Your task to perform on an android device: toggle translation in the chrome app Image 0: 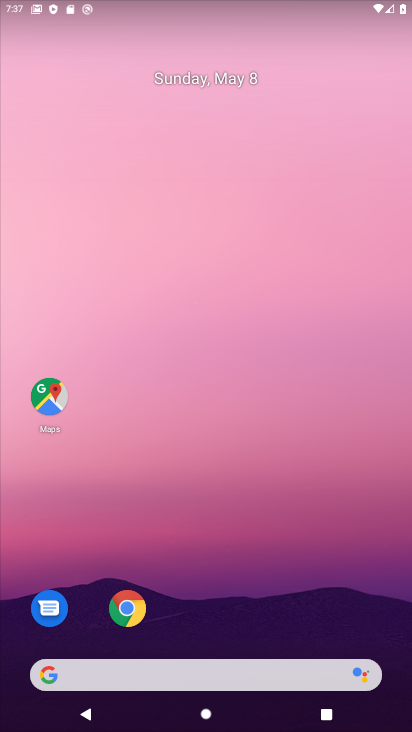
Step 0: click (128, 603)
Your task to perform on an android device: toggle translation in the chrome app Image 1: 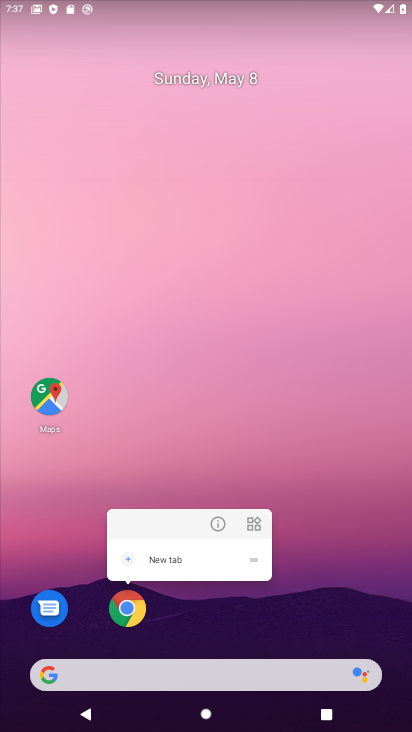
Step 1: click (136, 623)
Your task to perform on an android device: toggle translation in the chrome app Image 2: 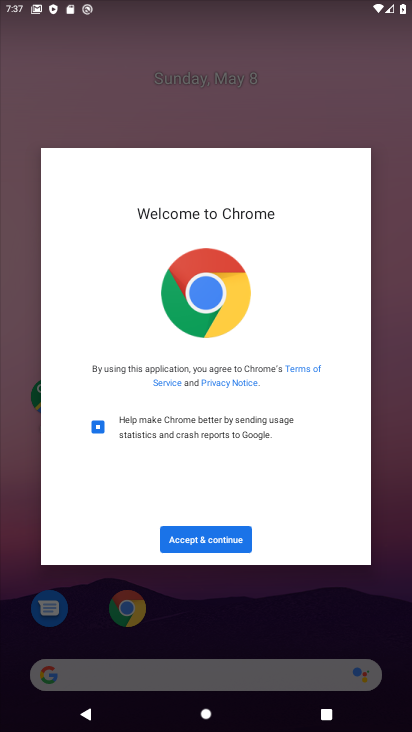
Step 2: click (131, 613)
Your task to perform on an android device: toggle translation in the chrome app Image 3: 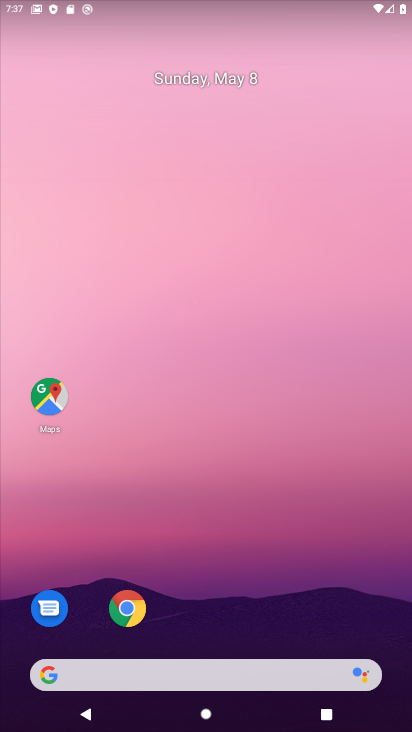
Step 3: click (138, 616)
Your task to perform on an android device: toggle translation in the chrome app Image 4: 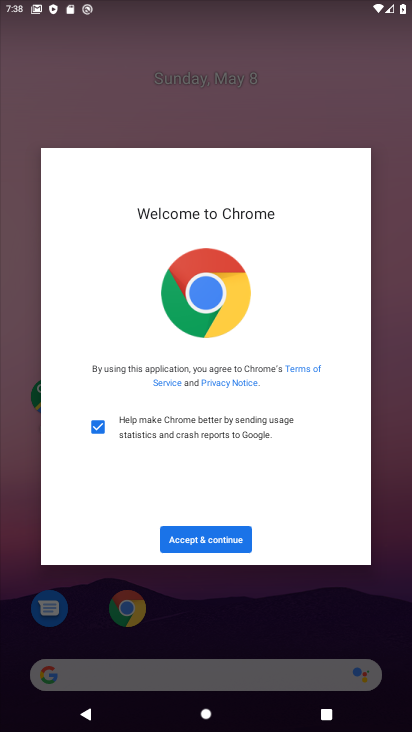
Step 4: click (125, 609)
Your task to perform on an android device: toggle translation in the chrome app Image 5: 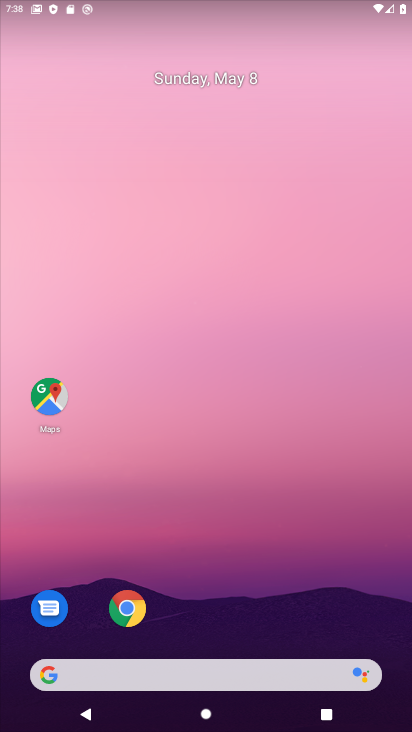
Step 5: click (130, 611)
Your task to perform on an android device: toggle translation in the chrome app Image 6: 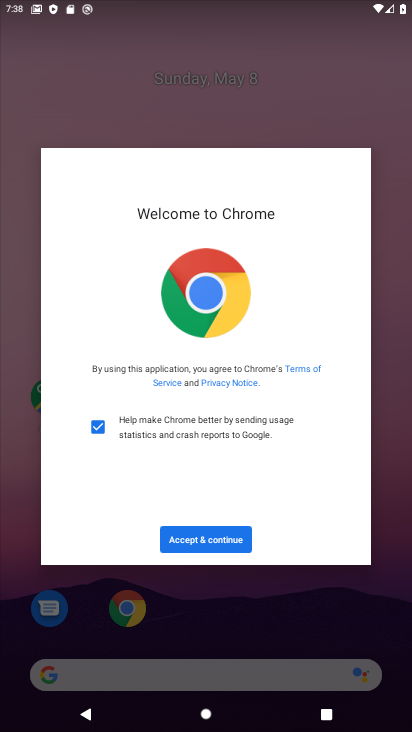
Step 6: click (211, 542)
Your task to perform on an android device: toggle translation in the chrome app Image 7: 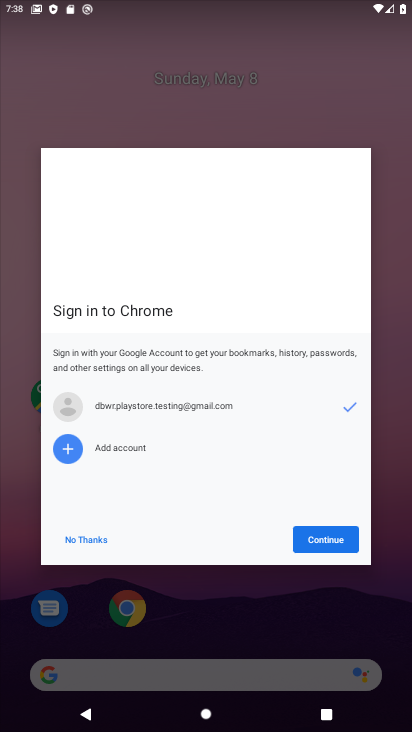
Step 7: click (314, 546)
Your task to perform on an android device: toggle translation in the chrome app Image 8: 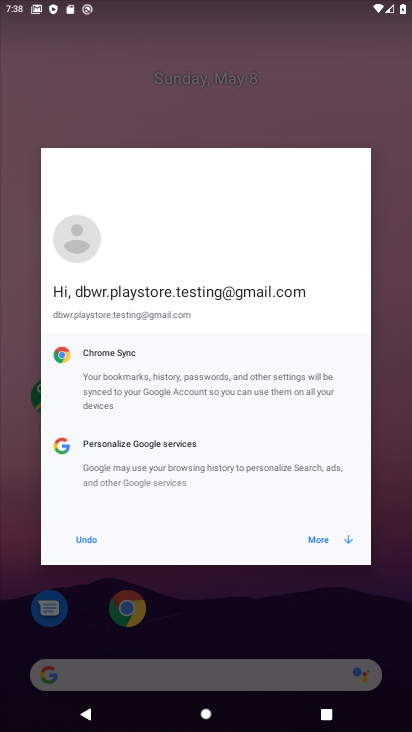
Step 8: click (320, 544)
Your task to perform on an android device: toggle translation in the chrome app Image 9: 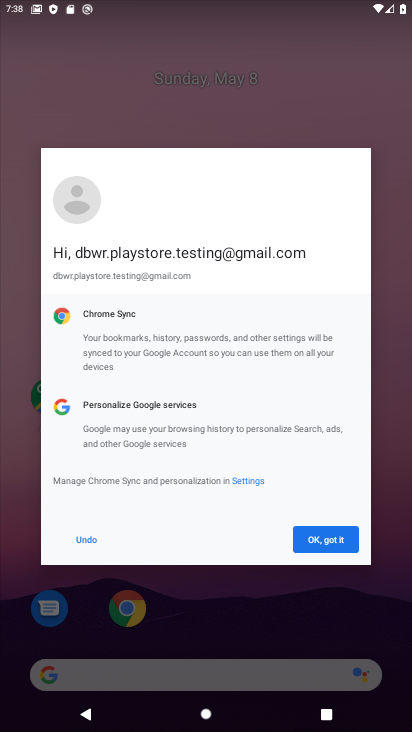
Step 9: click (320, 541)
Your task to perform on an android device: toggle translation in the chrome app Image 10: 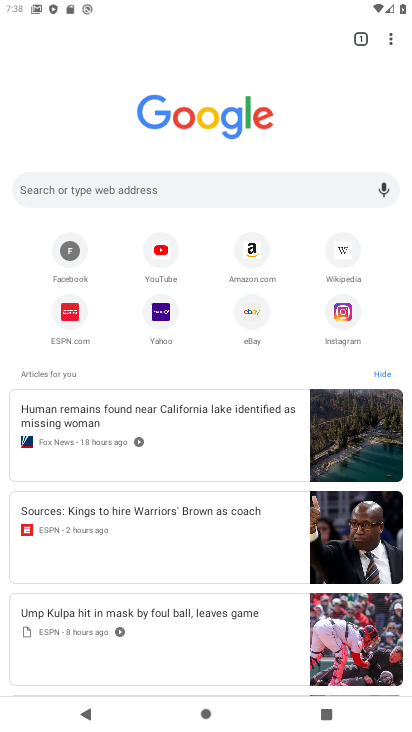
Step 10: drag from (391, 37) to (313, 324)
Your task to perform on an android device: toggle translation in the chrome app Image 11: 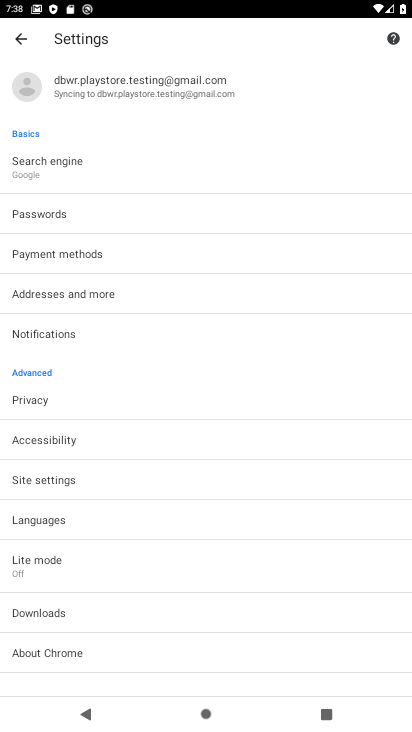
Step 11: click (112, 519)
Your task to perform on an android device: toggle translation in the chrome app Image 12: 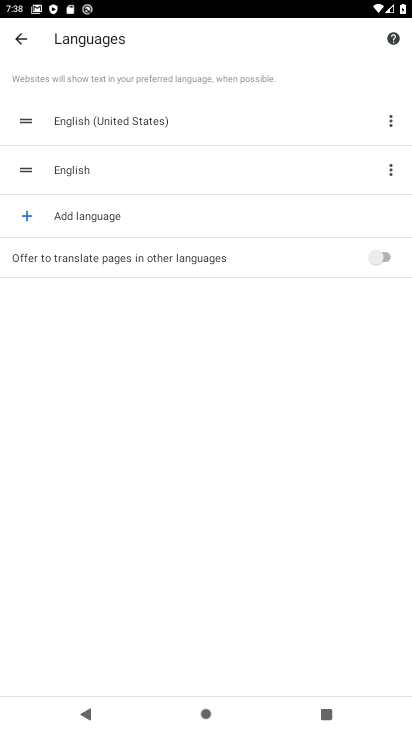
Step 12: click (383, 255)
Your task to perform on an android device: toggle translation in the chrome app Image 13: 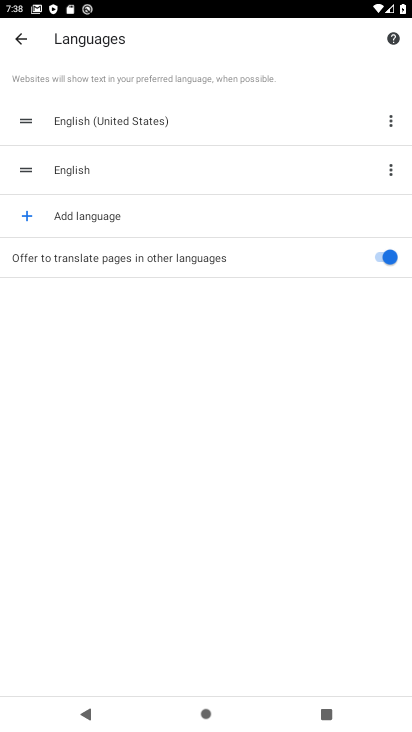
Step 13: task complete